Your task to perform on an android device: toggle translation in the chrome app Image 0: 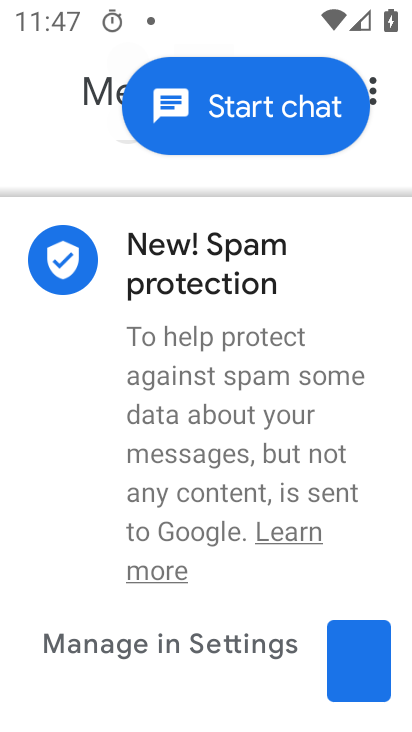
Step 0: press home button
Your task to perform on an android device: toggle translation in the chrome app Image 1: 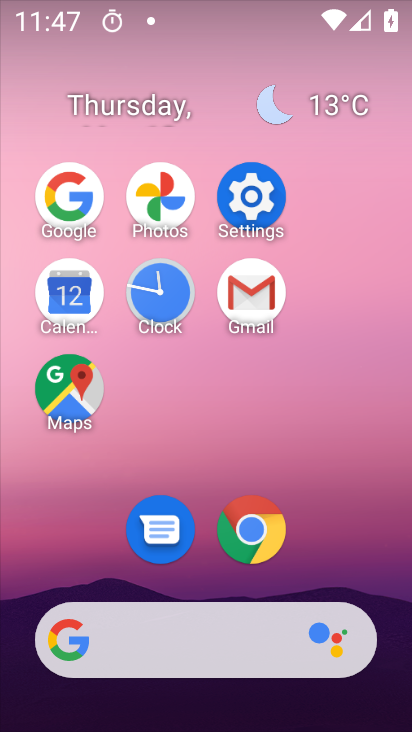
Step 1: click (252, 536)
Your task to perform on an android device: toggle translation in the chrome app Image 2: 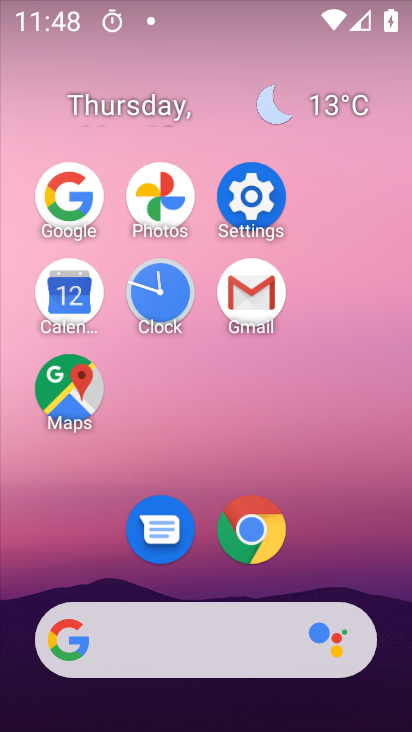
Step 2: click (253, 544)
Your task to perform on an android device: toggle translation in the chrome app Image 3: 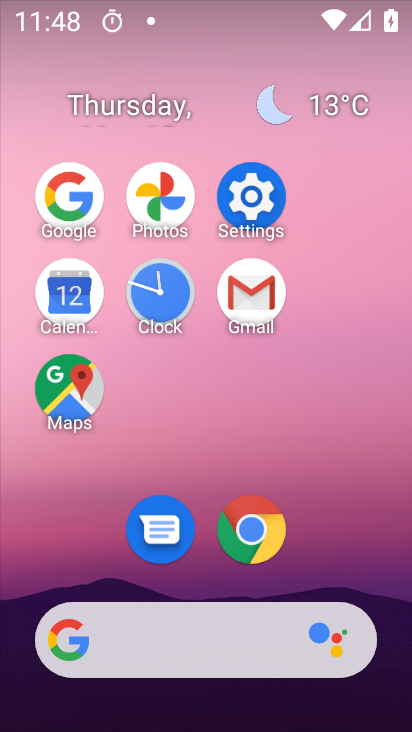
Step 3: click (266, 507)
Your task to perform on an android device: toggle translation in the chrome app Image 4: 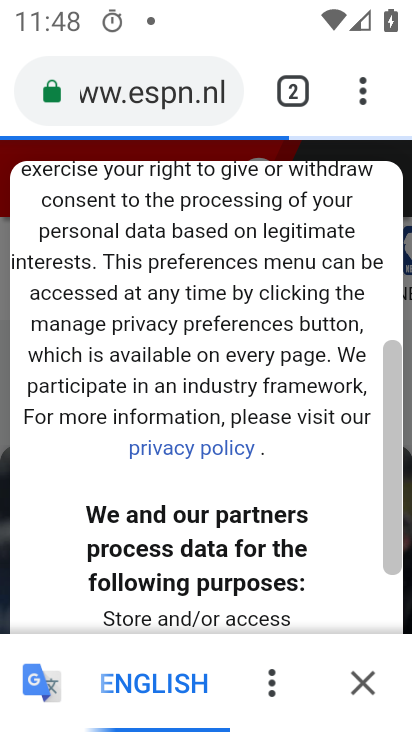
Step 4: click (364, 76)
Your task to perform on an android device: toggle translation in the chrome app Image 5: 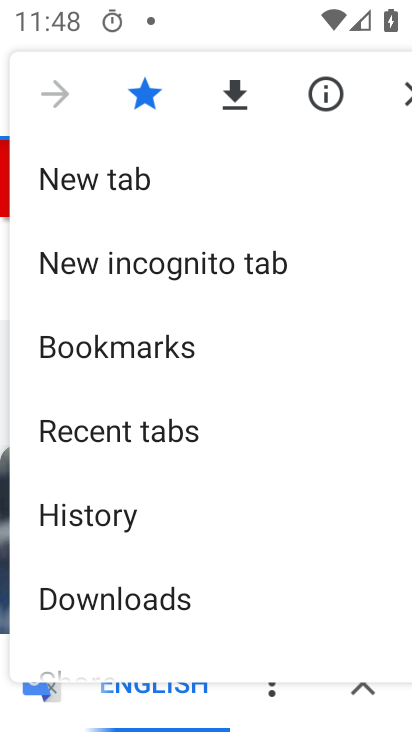
Step 5: drag from (194, 597) to (252, 156)
Your task to perform on an android device: toggle translation in the chrome app Image 6: 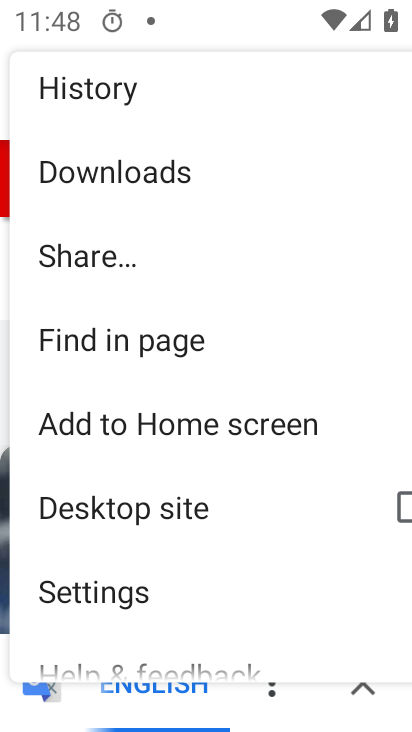
Step 6: drag from (171, 591) to (244, 212)
Your task to perform on an android device: toggle translation in the chrome app Image 7: 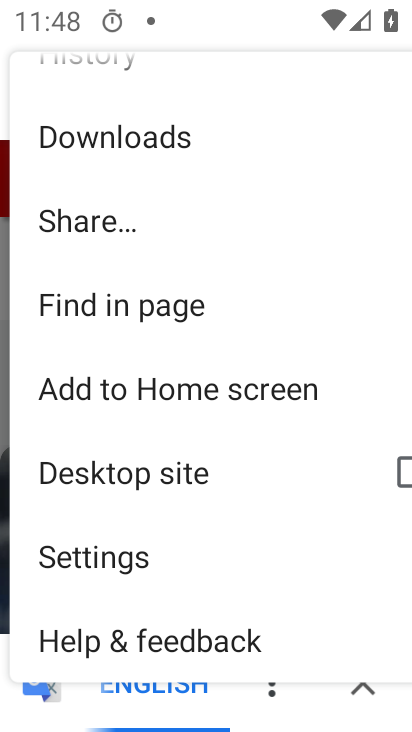
Step 7: click (158, 542)
Your task to perform on an android device: toggle translation in the chrome app Image 8: 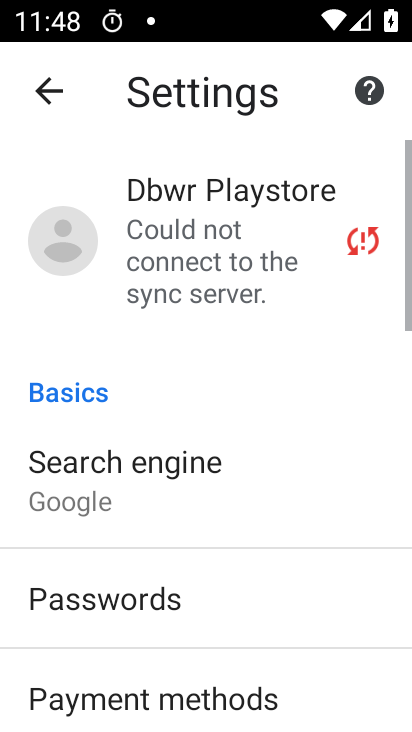
Step 8: drag from (163, 507) to (231, 105)
Your task to perform on an android device: toggle translation in the chrome app Image 9: 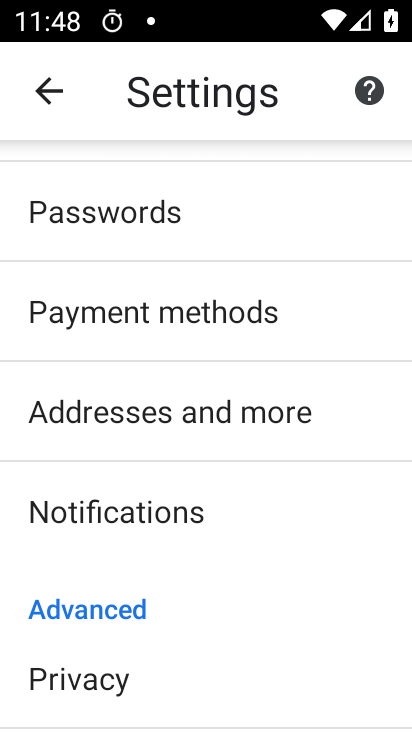
Step 9: drag from (173, 563) to (244, 146)
Your task to perform on an android device: toggle translation in the chrome app Image 10: 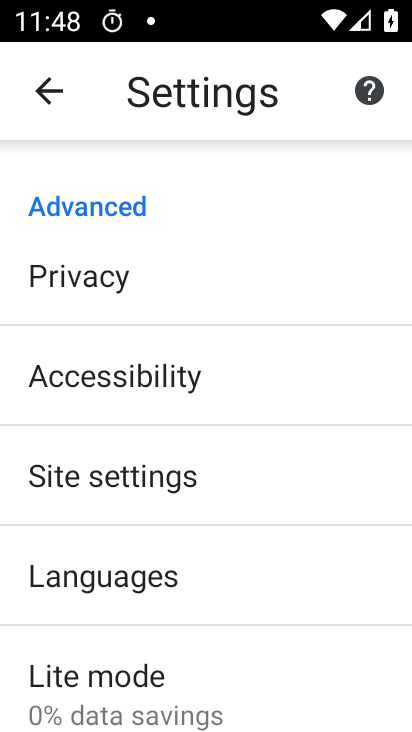
Step 10: click (171, 582)
Your task to perform on an android device: toggle translation in the chrome app Image 11: 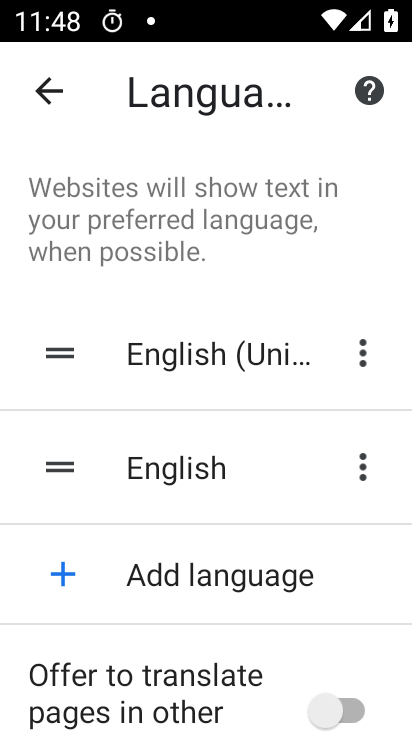
Step 11: click (341, 705)
Your task to perform on an android device: toggle translation in the chrome app Image 12: 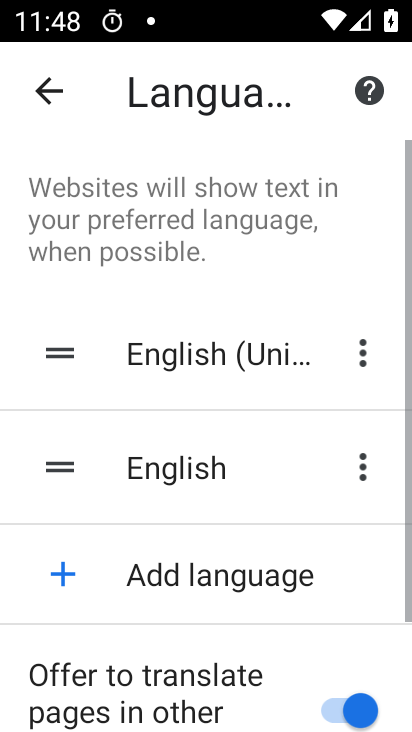
Step 12: task complete